Your task to perform on an android device: install app "DuckDuckGo Privacy Browser" Image 0: 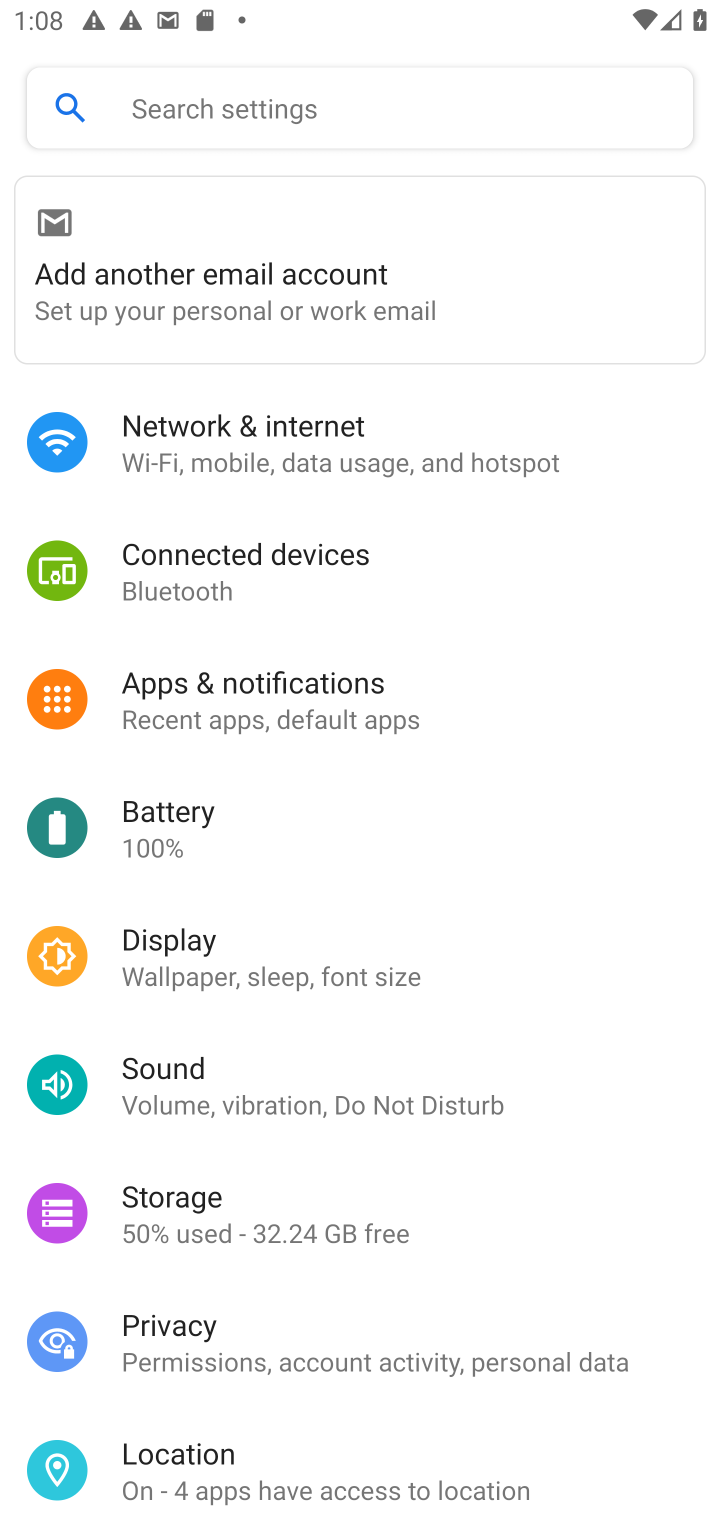
Step 0: press home button
Your task to perform on an android device: install app "DuckDuckGo Privacy Browser" Image 1: 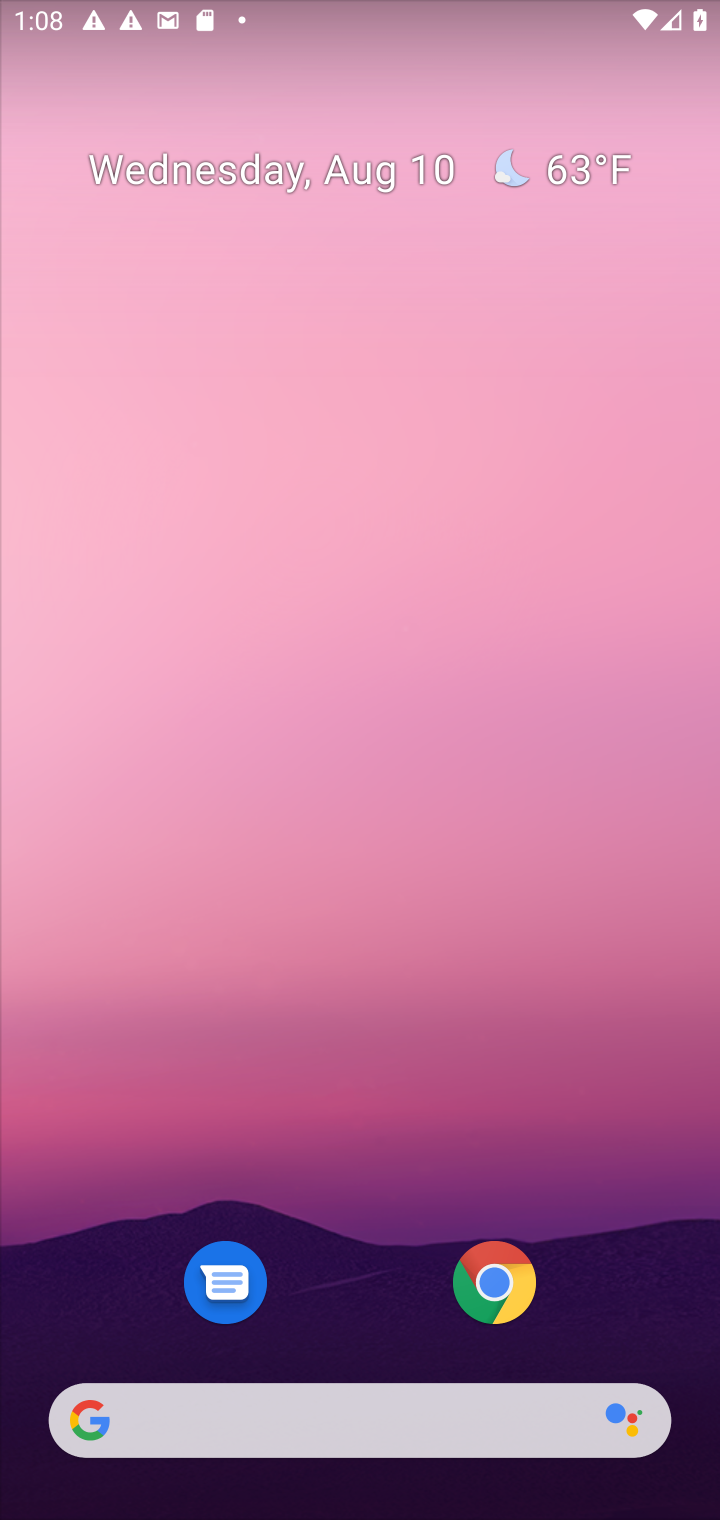
Step 1: drag from (305, 1285) to (503, 44)
Your task to perform on an android device: install app "DuckDuckGo Privacy Browser" Image 2: 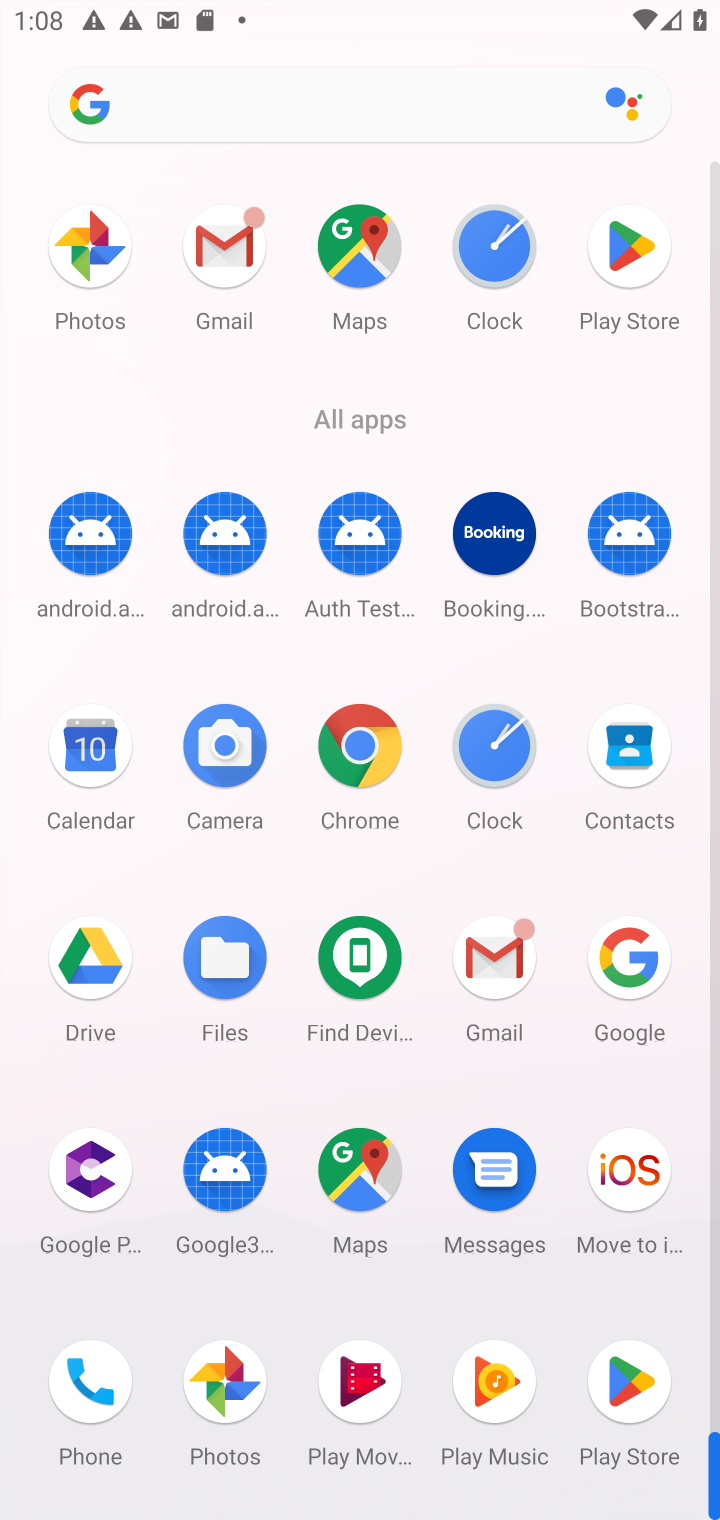
Step 2: click (376, 743)
Your task to perform on an android device: install app "DuckDuckGo Privacy Browser" Image 3: 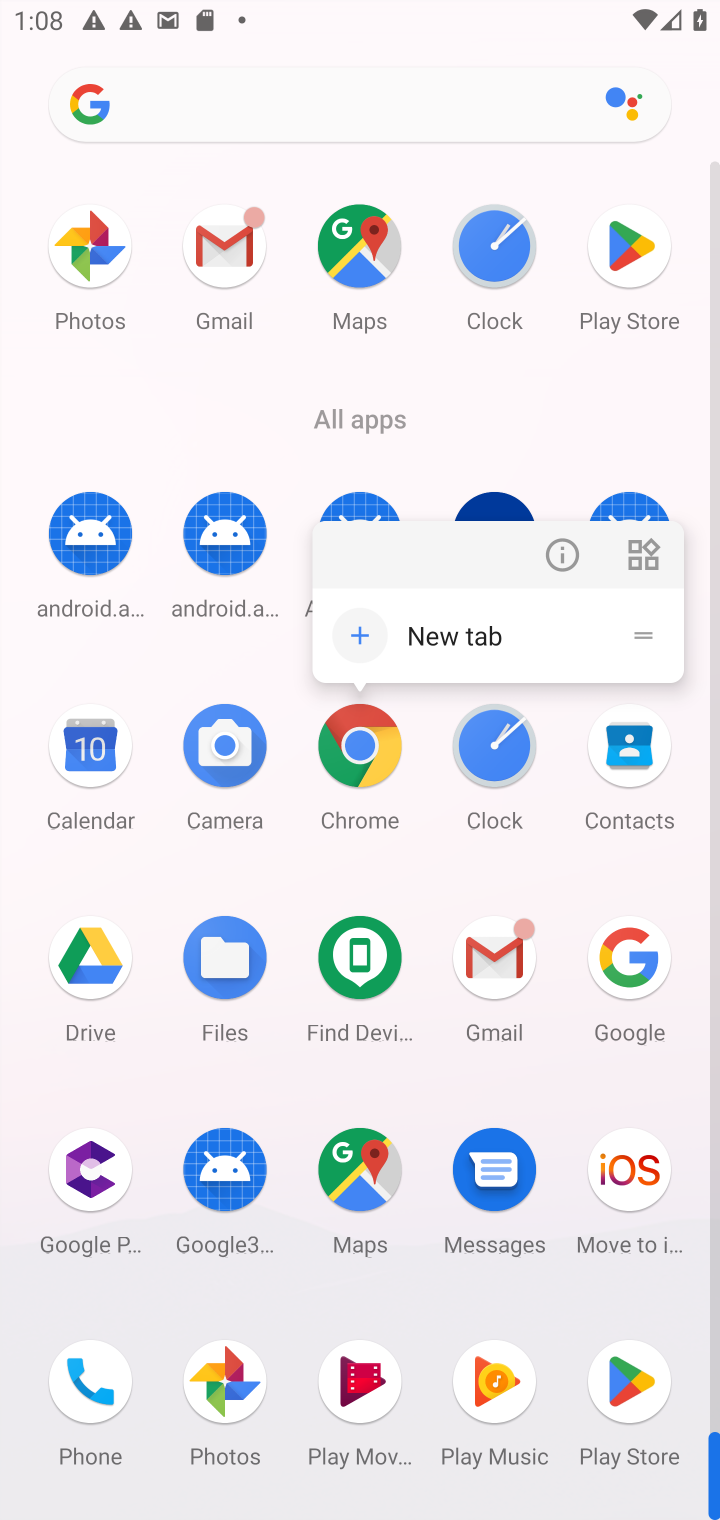
Step 3: click (376, 743)
Your task to perform on an android device: install app "DuckDuckGo Privacy Browser" Image 4: 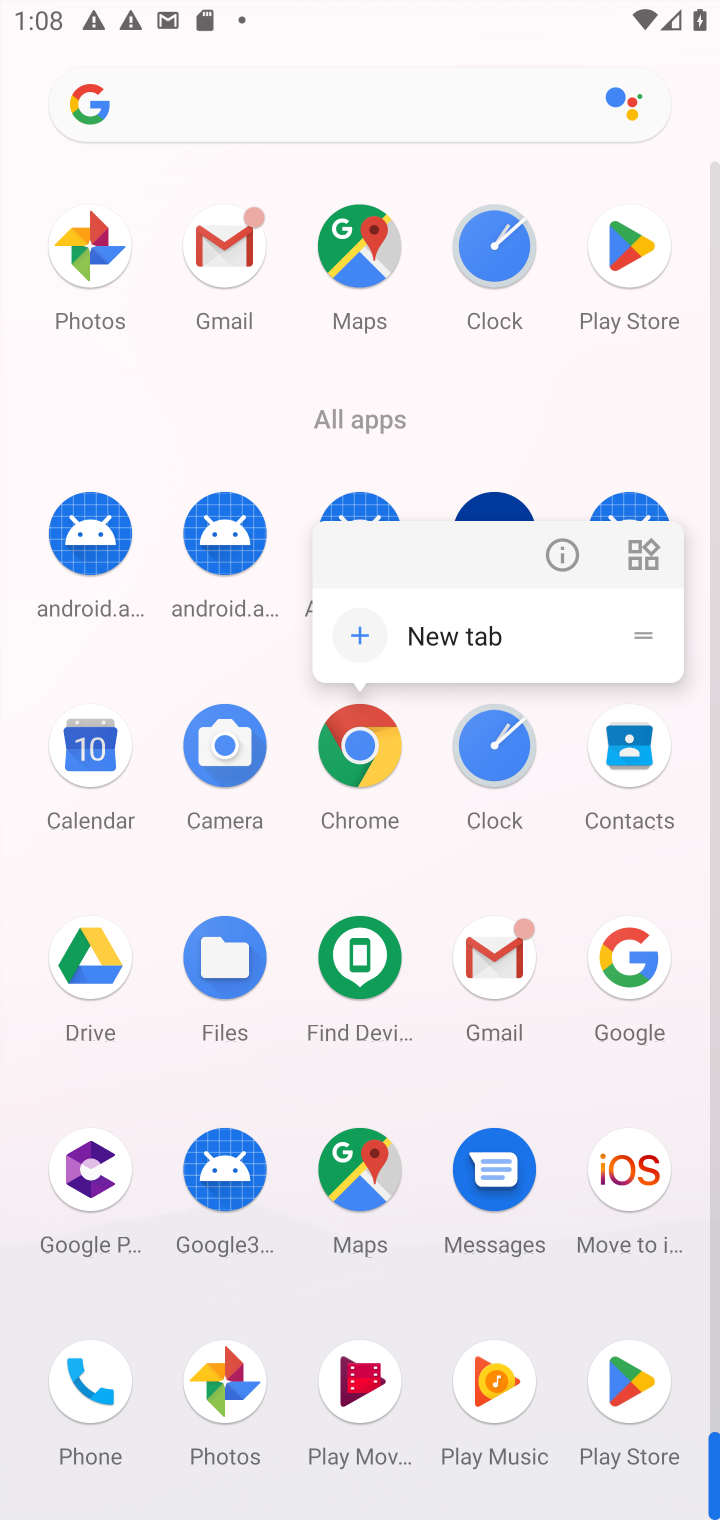
Step 4: click (376, 743)
Your task to perform on an android device: install app "DuckDuckGo Privacy Browser" Image 5: 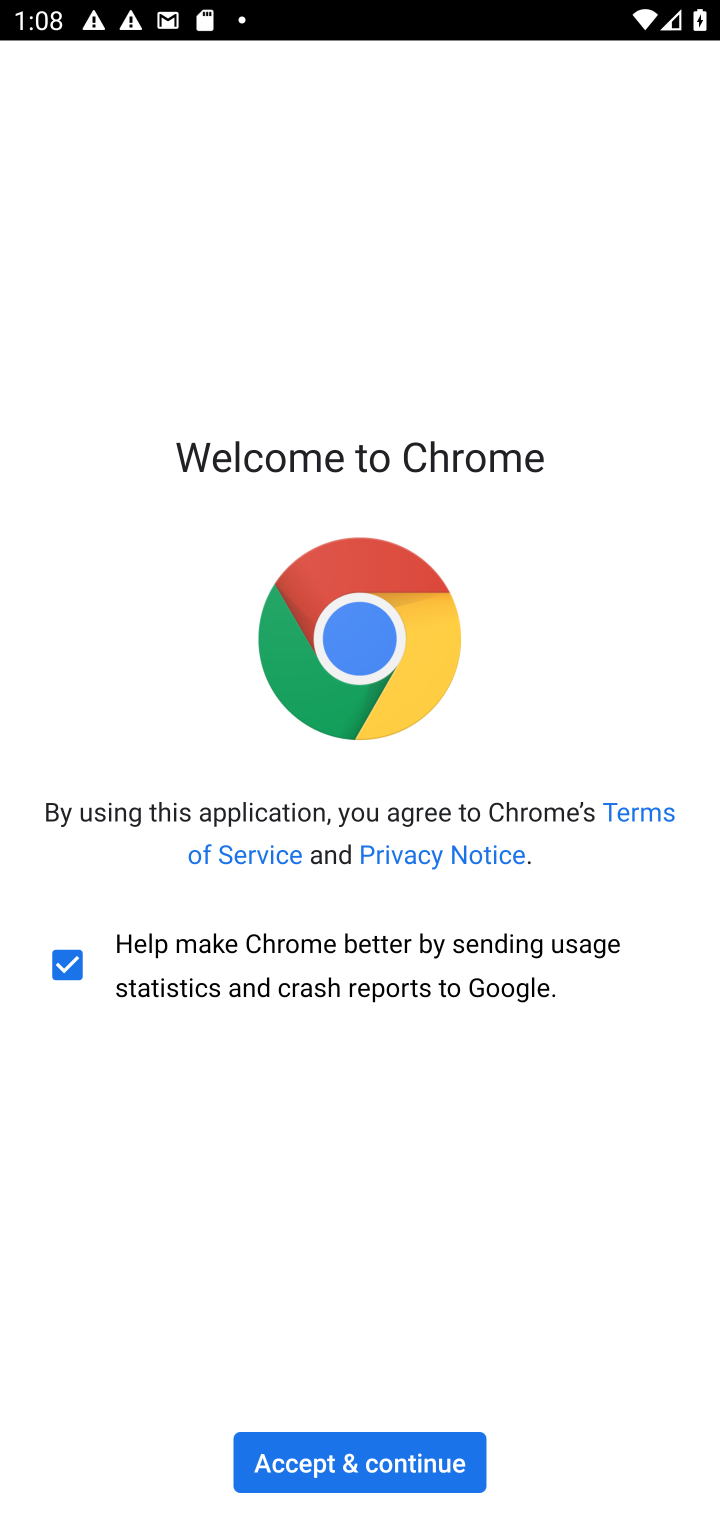
Step 5: press home button
Your task to perform on an android device: install app "DuckDuckGo Privacy Browser" Image 6: 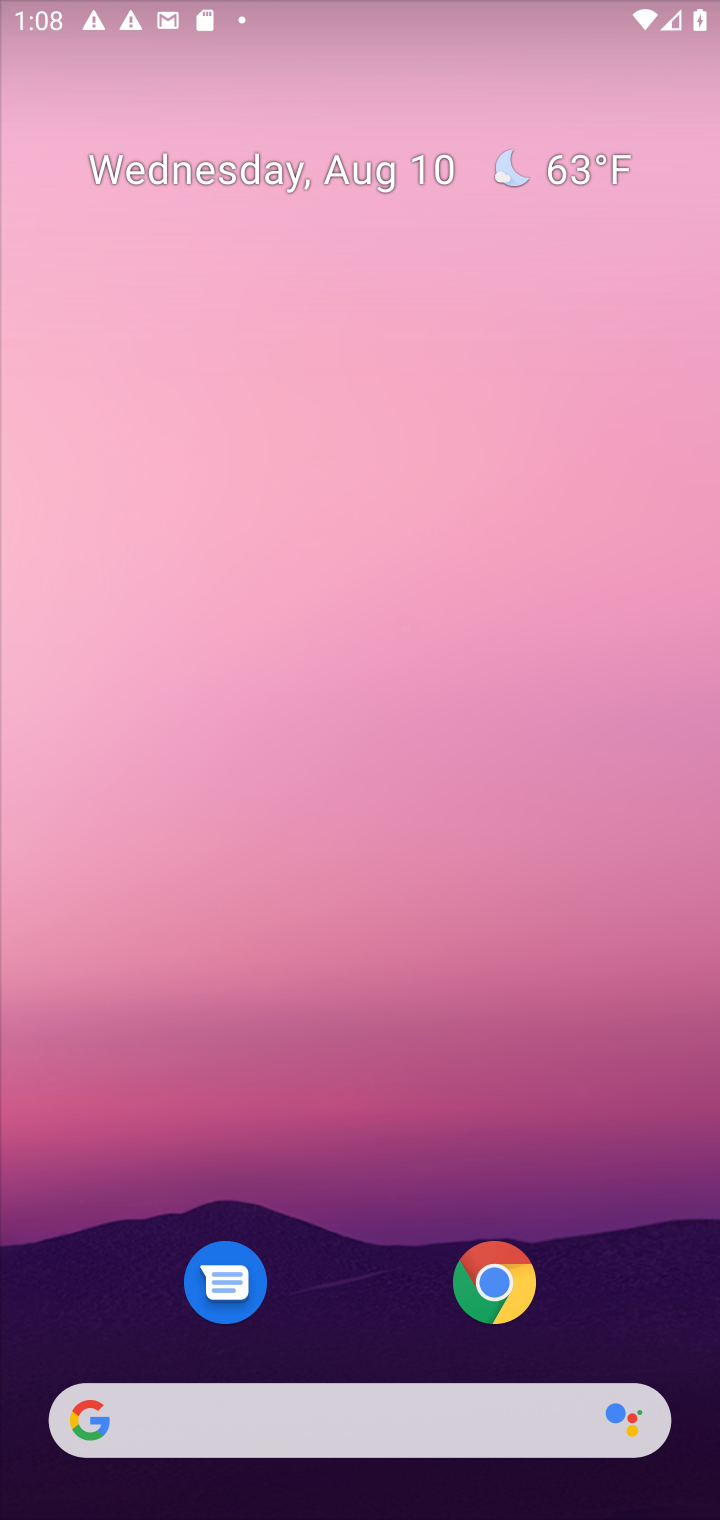
Step 6: drag from (366, 1285) to (492, 144)
Your task to perform on an android device: install app "DuckDuckGo Privacy Browser" Image 7: 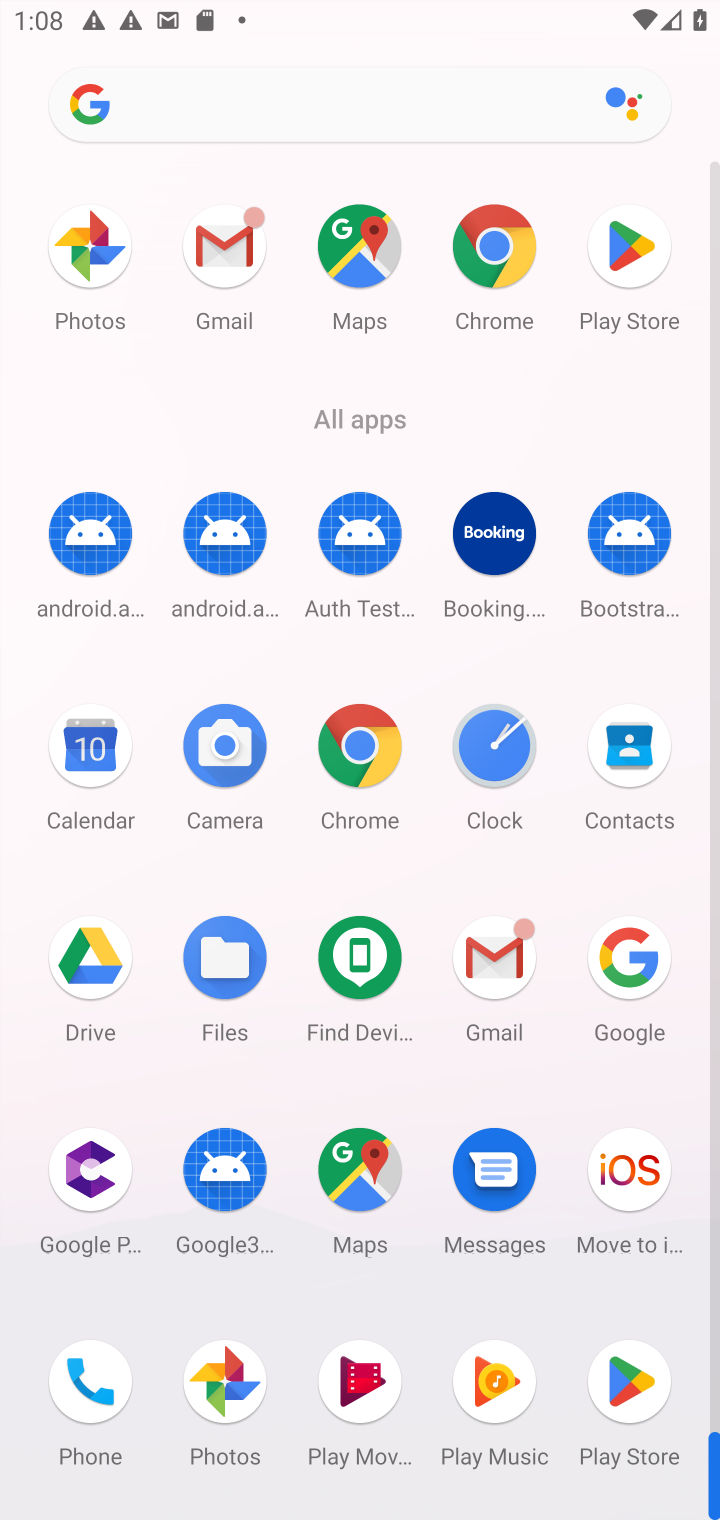
Step 7: click (625, 1361)
Your task to perform on an android device: install app "DuckDuckGo Privacy Browser" Image 8: 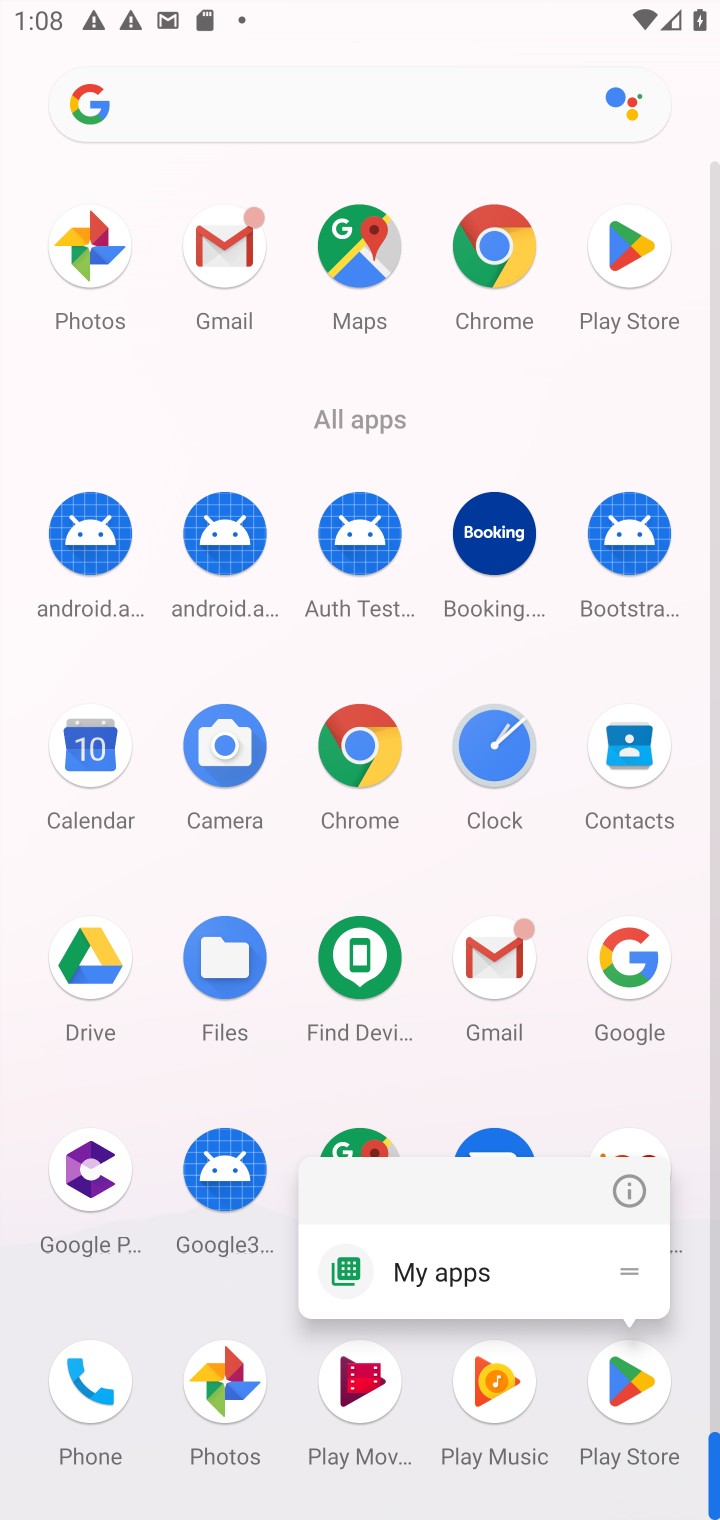
Step 8: click (625, 1354)
Your task to perform on an android device: install app "DuckDuckGo Privacy Browser" Image 9: 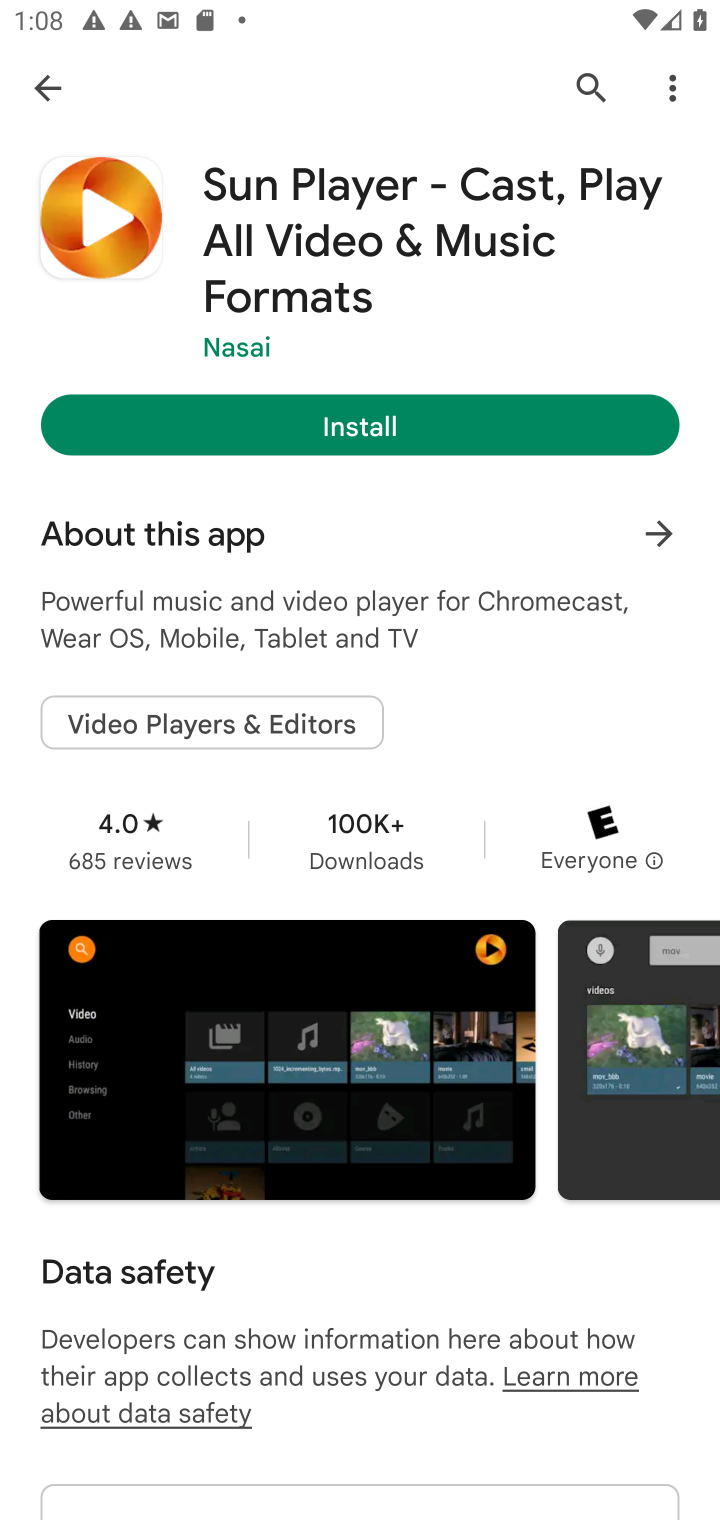
Step 9: click (46, 96)
Your task to perform on an android device: install app "DuckDuckGo Privacy Browser" Image 10: 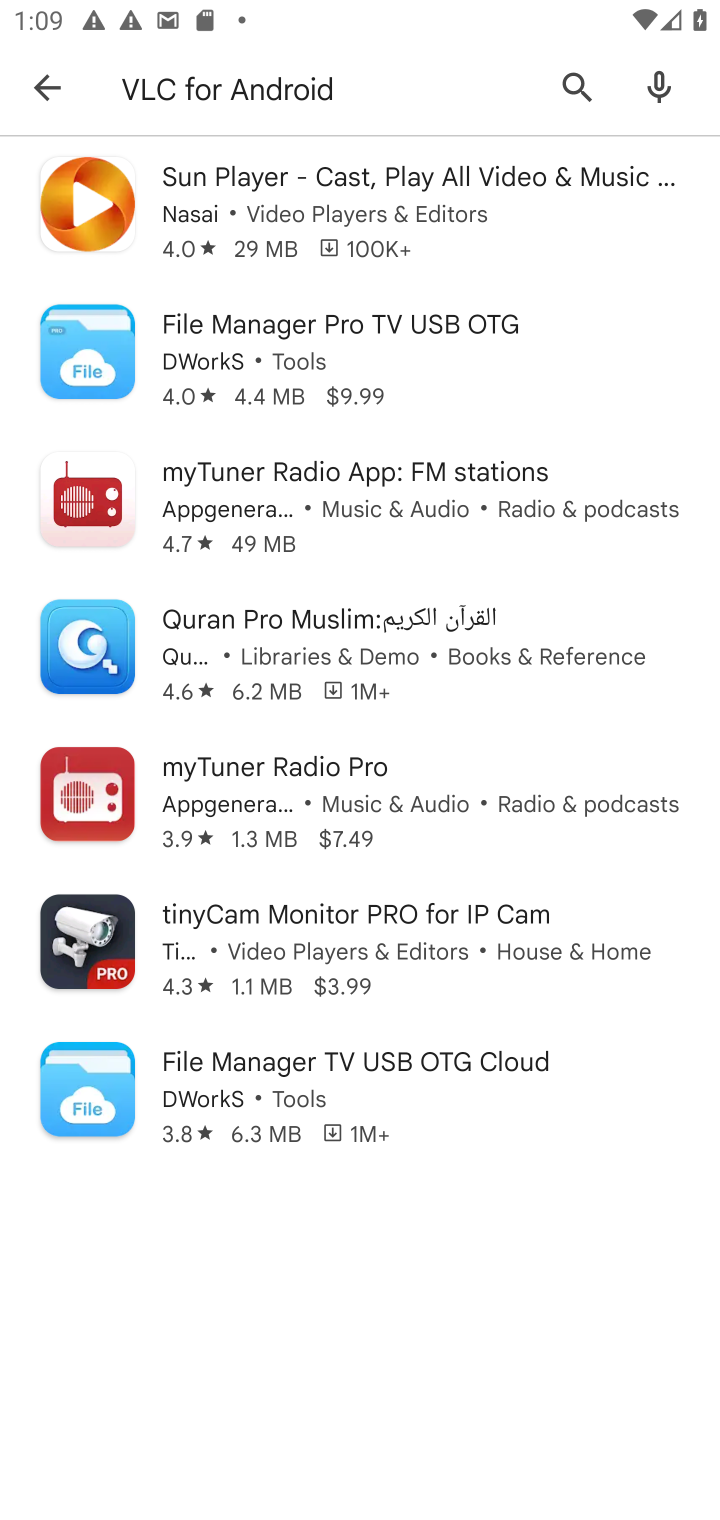
Step 10: click (46, 89)
Your task to perform on an android device: install app "DuckDuckGo Privacy Browser" Image 11: 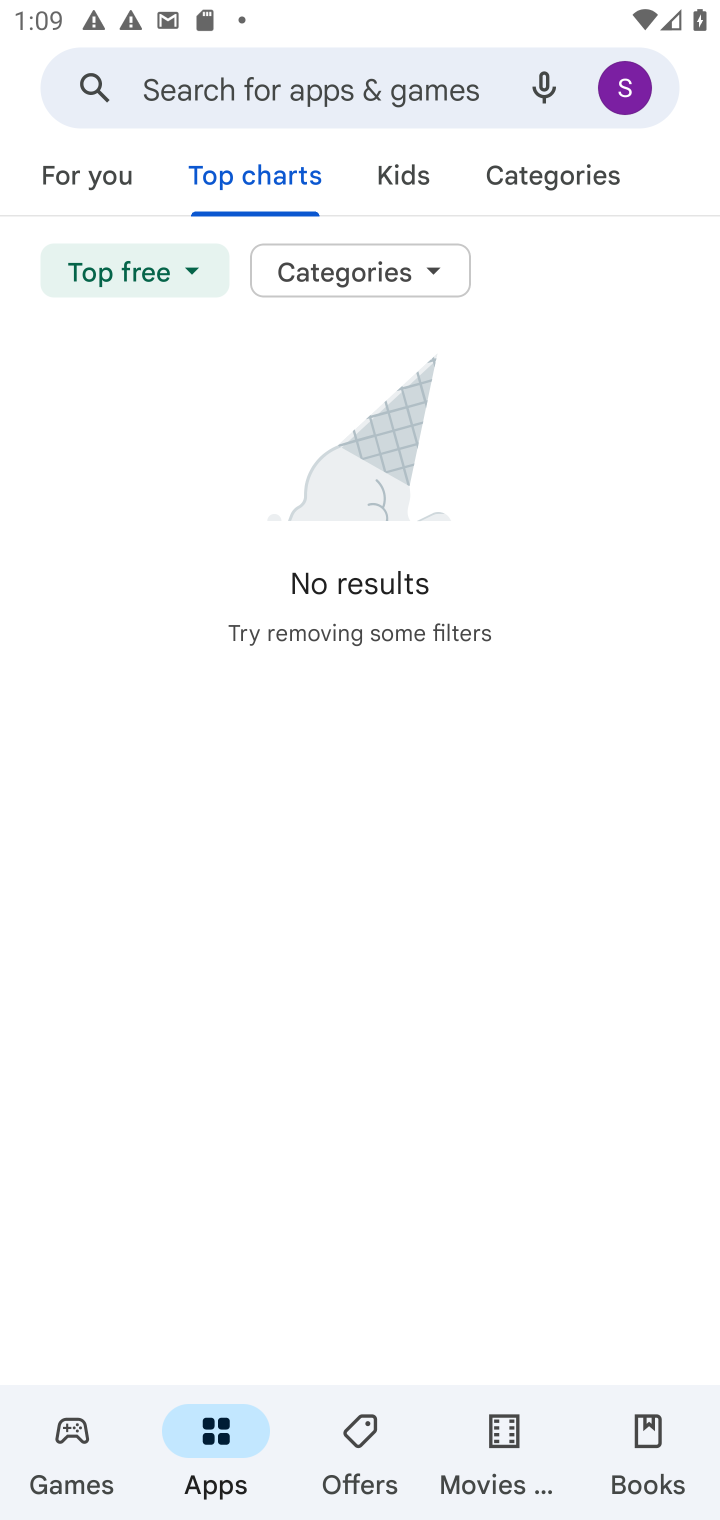
Step 11: click (110, 179)
Your task to perform on an android device: install app "DuckDuckGo Privacy Browser" Image 12: 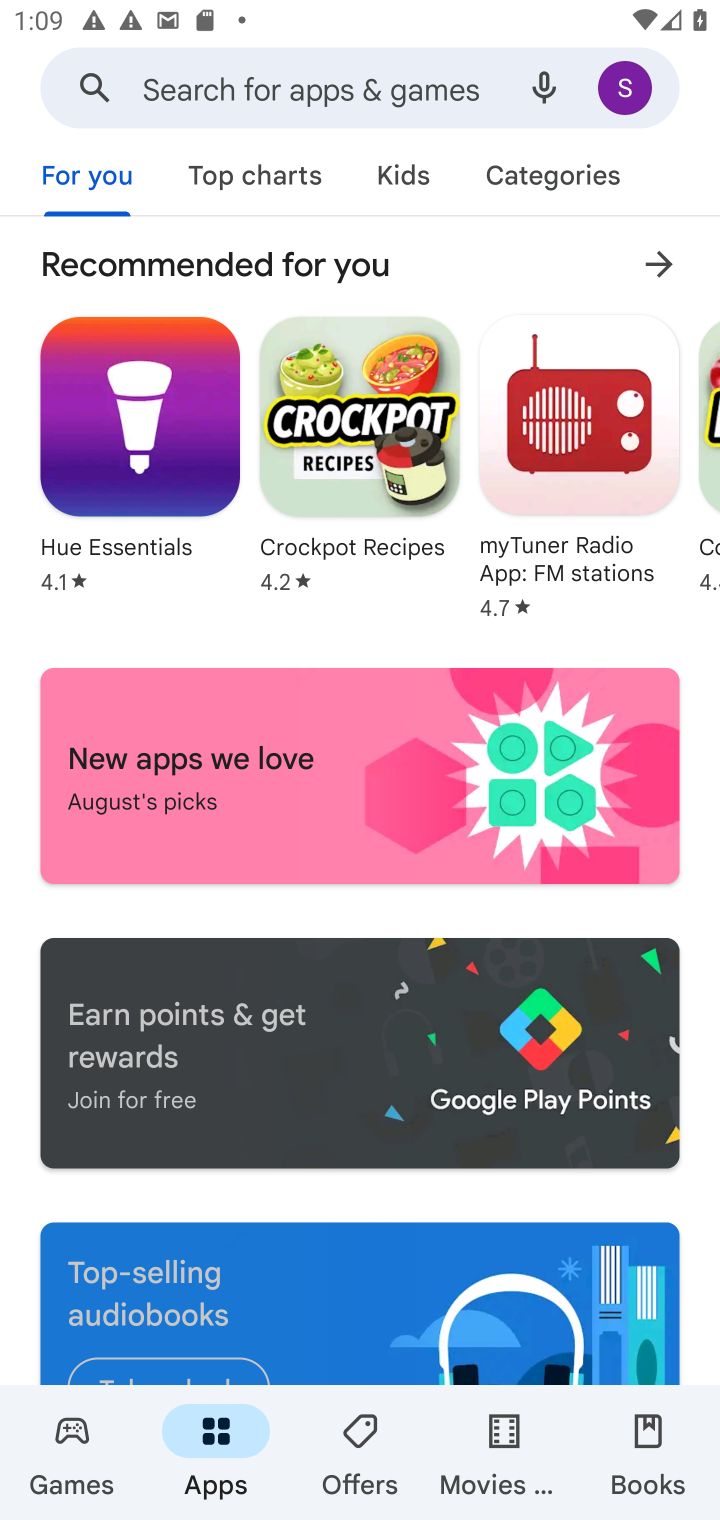
Step 12: click (325, 86)
Your task to perform on an android device: install app "DuckDuckGo Privacy Browser" Image 13: 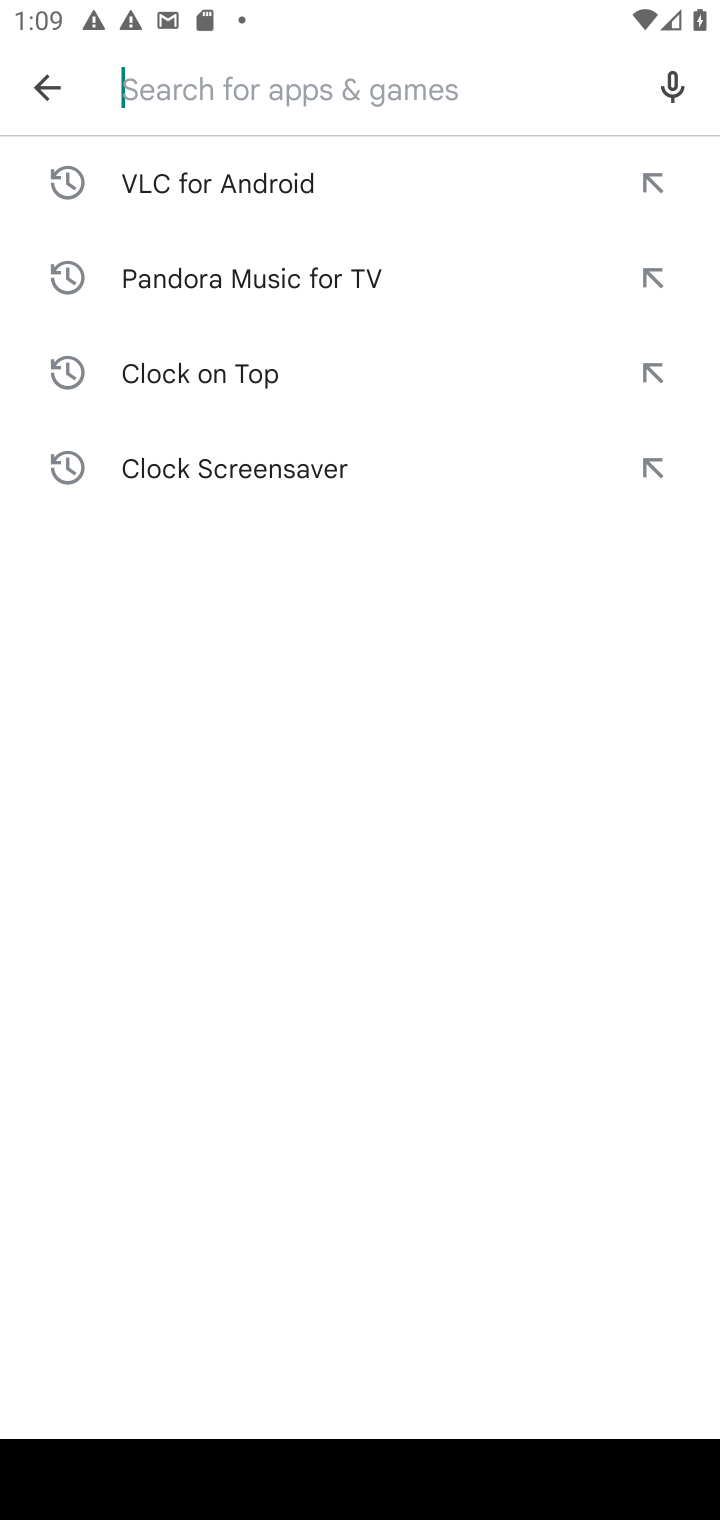
Step 13: type "DuckDuckGo Privacy Browser" "
Your task to perform on an android device: install app "DuckDuckGo Privacy Browser" Image 14: 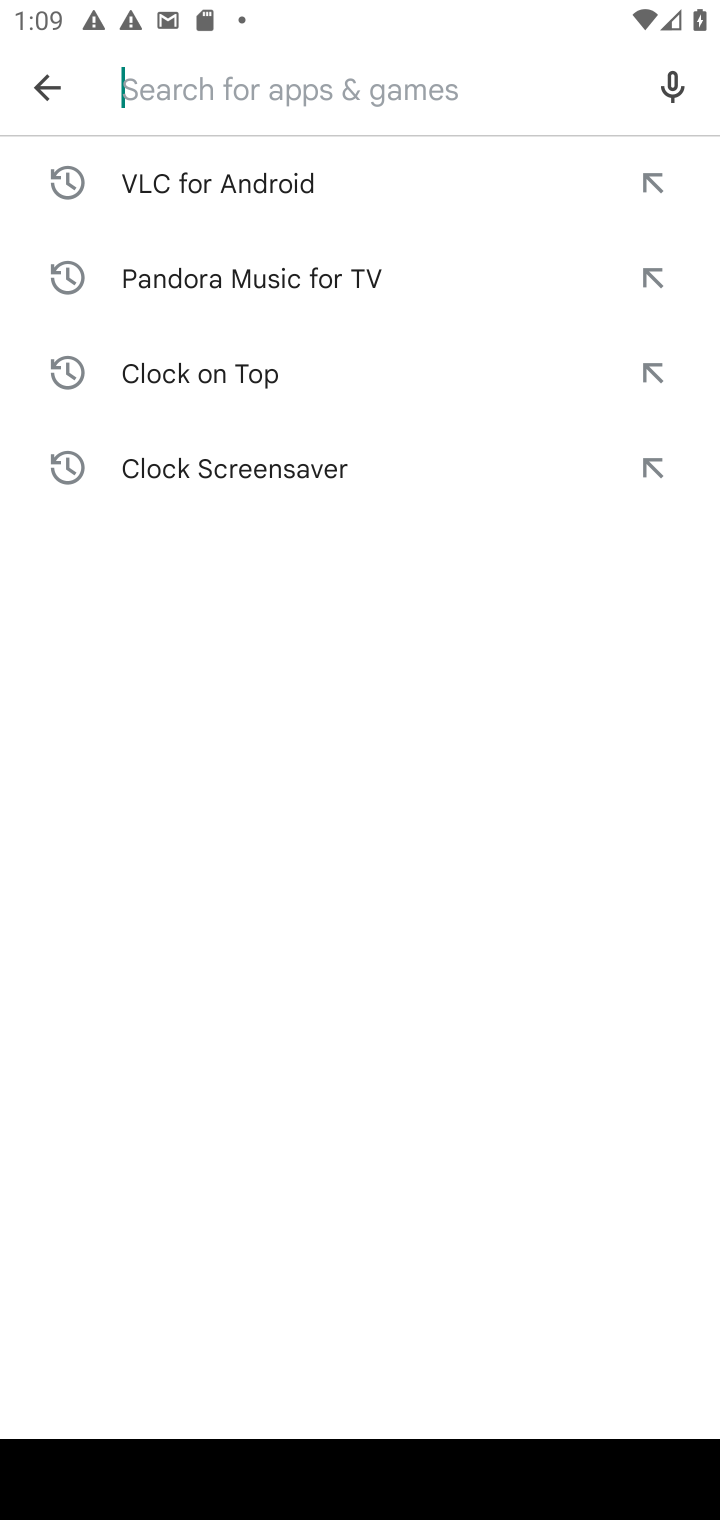
Step 14: click (390, 59)
Your task to perform on an android device: install app "DuckDuckGo Privacy Browser" Image 15: 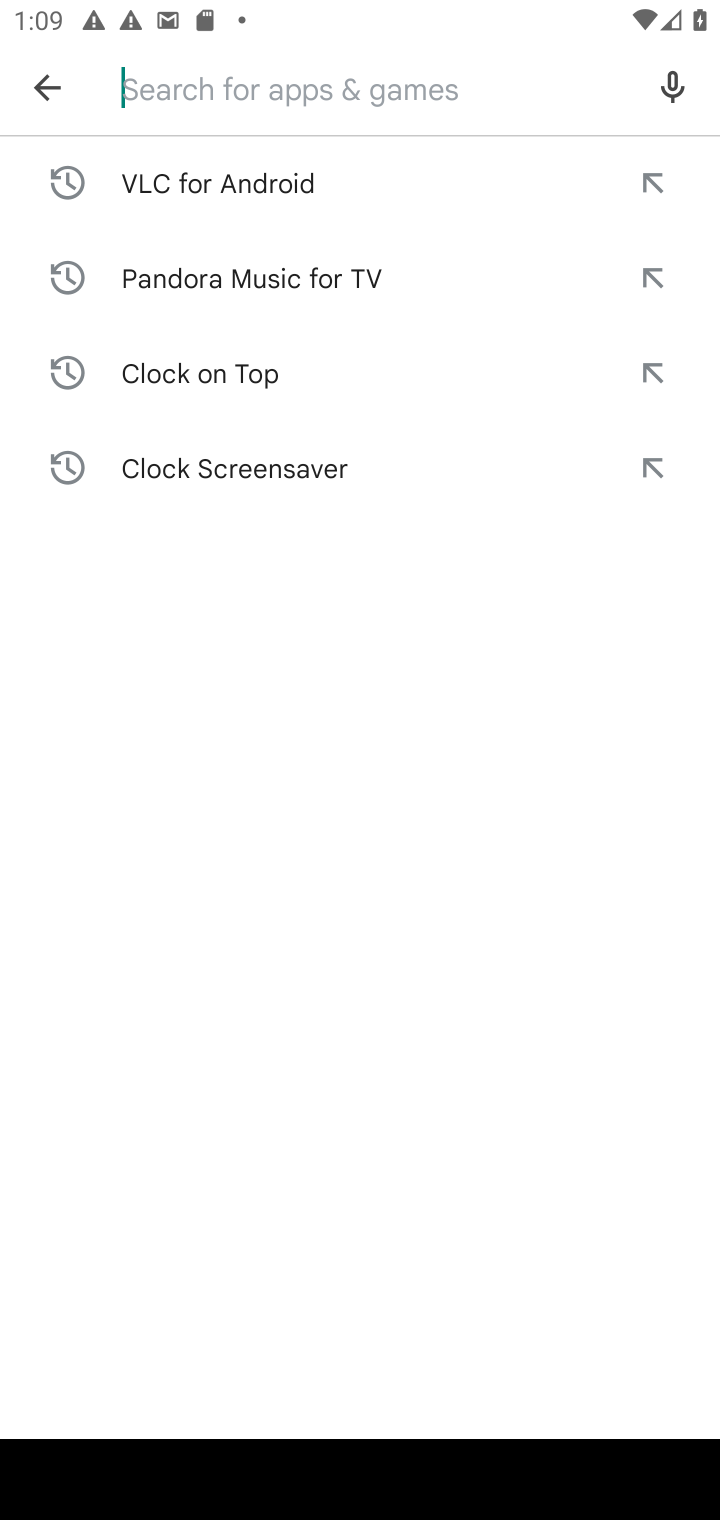
Step 15: type ""DuckDuckGo Privacy Browser "
Your task to perform on an android device: install app "DuckDuckGo Privacy Browser" Image 16: 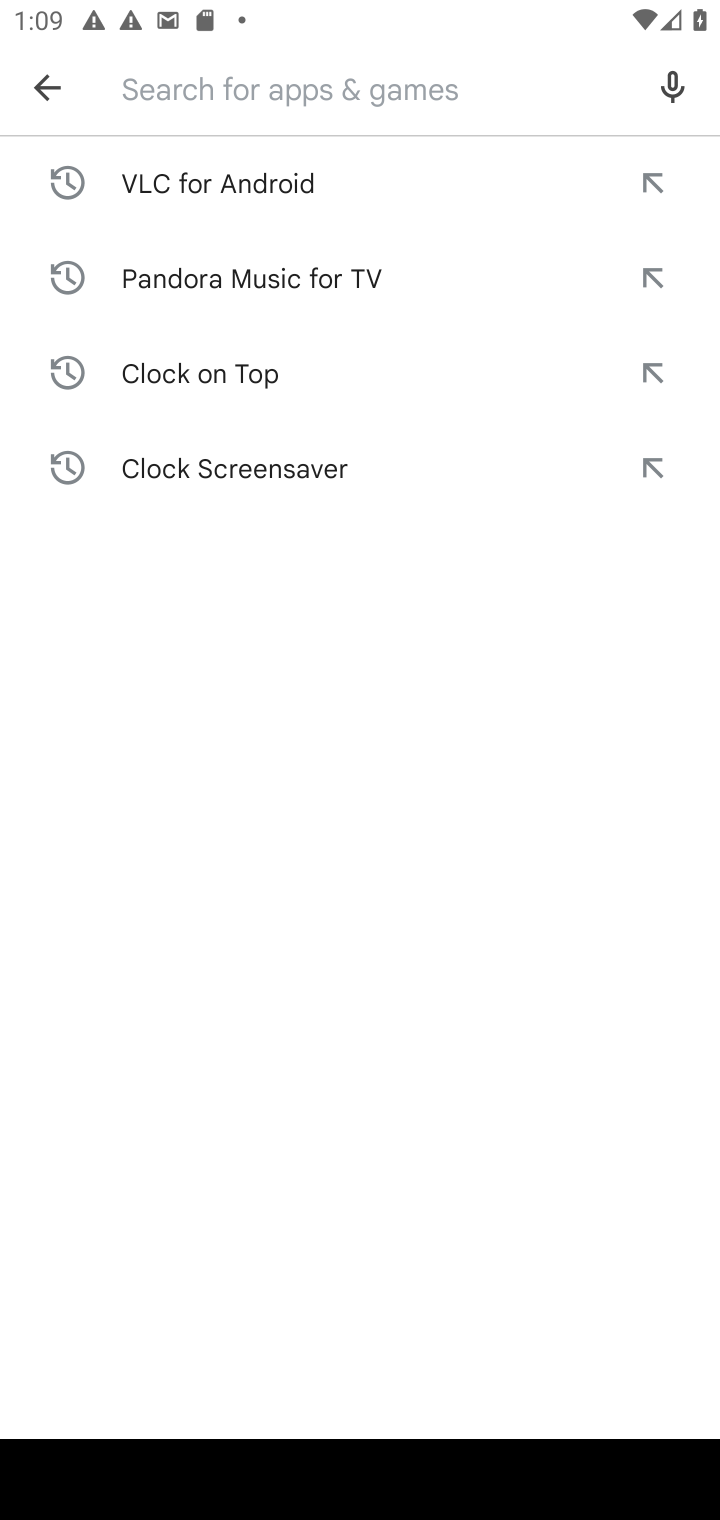
Step 16: click (301, 88)
Your task to perform on an android device: install app "DuckDuckGo Privacy Browser" Image 17: 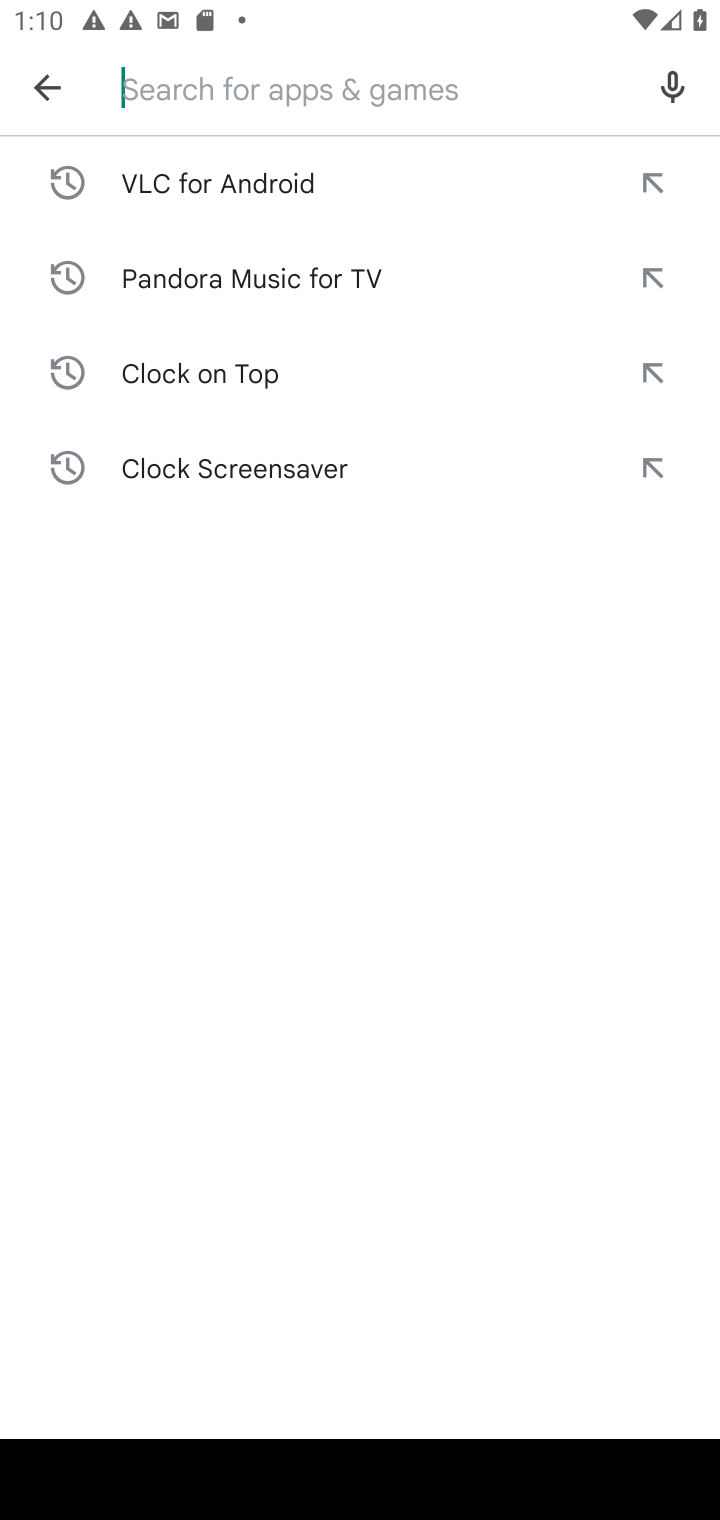
Step 17: type "duckduckgo "
Your task to perform on an android device: install app "DuckDuckGo Privacy Browser" Image 18: 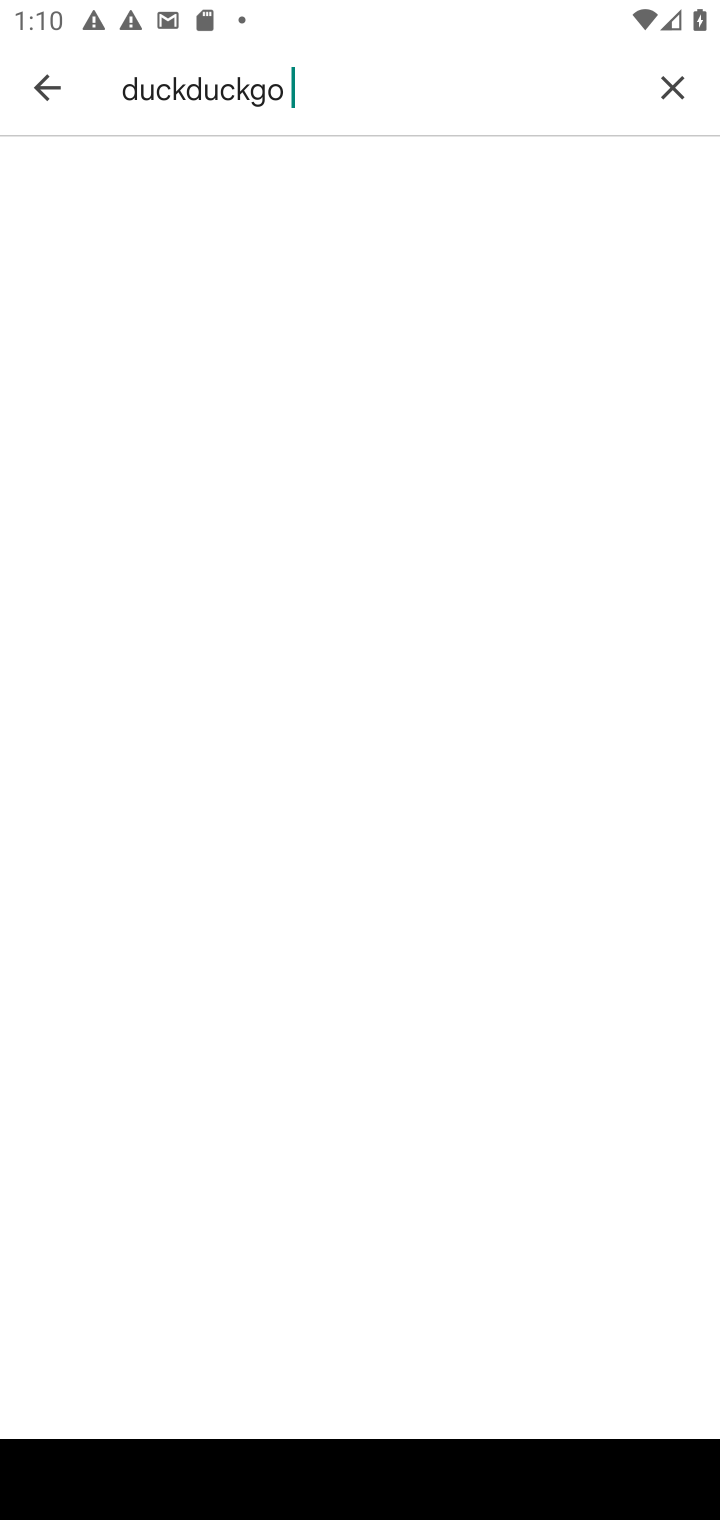
Step 18: click (322, 87)
Your task to perform on an android device: install app "DuckDuckGo Privacy Browser" Image 19: 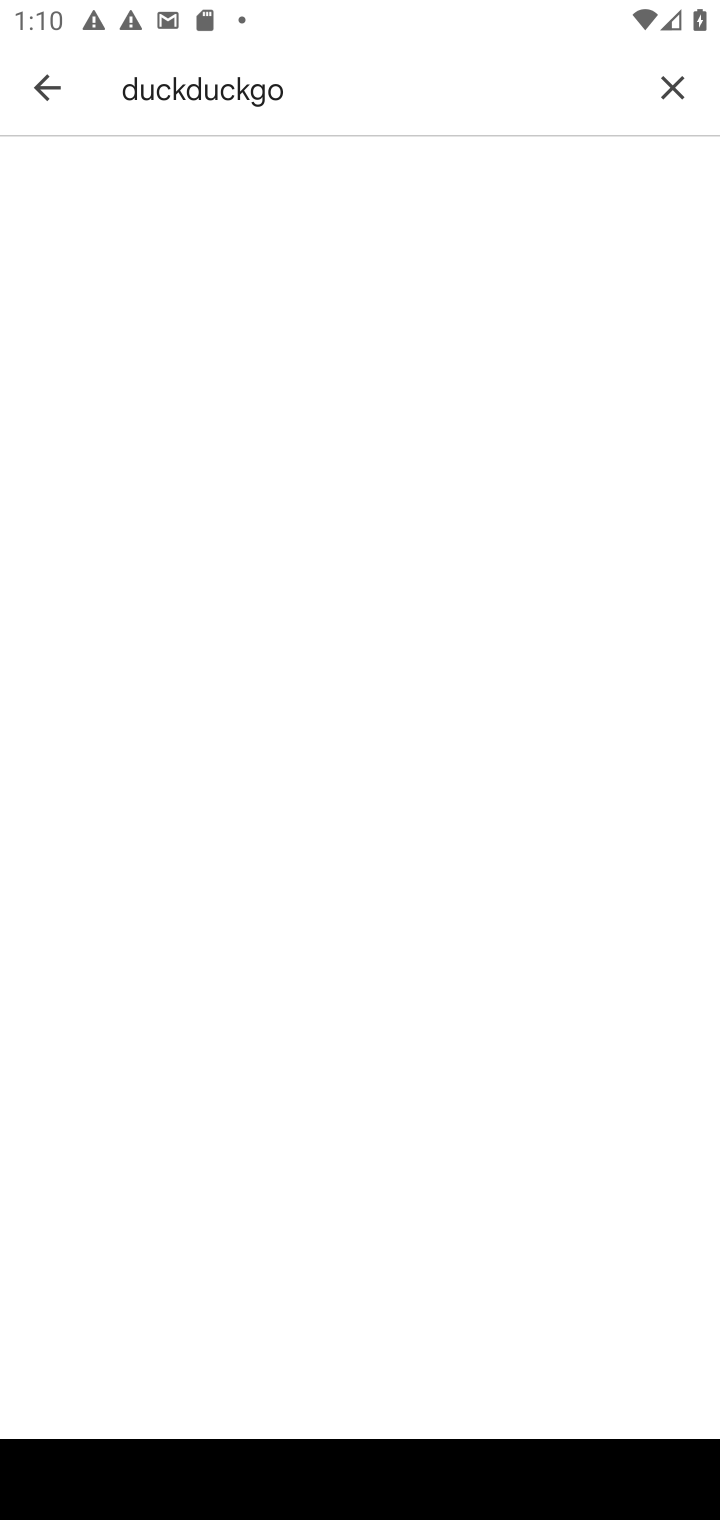
Step 19: click (281, 184)
Your task to perform on an android device: install app "DuckDuckGo Privacy Browser" Image 20: 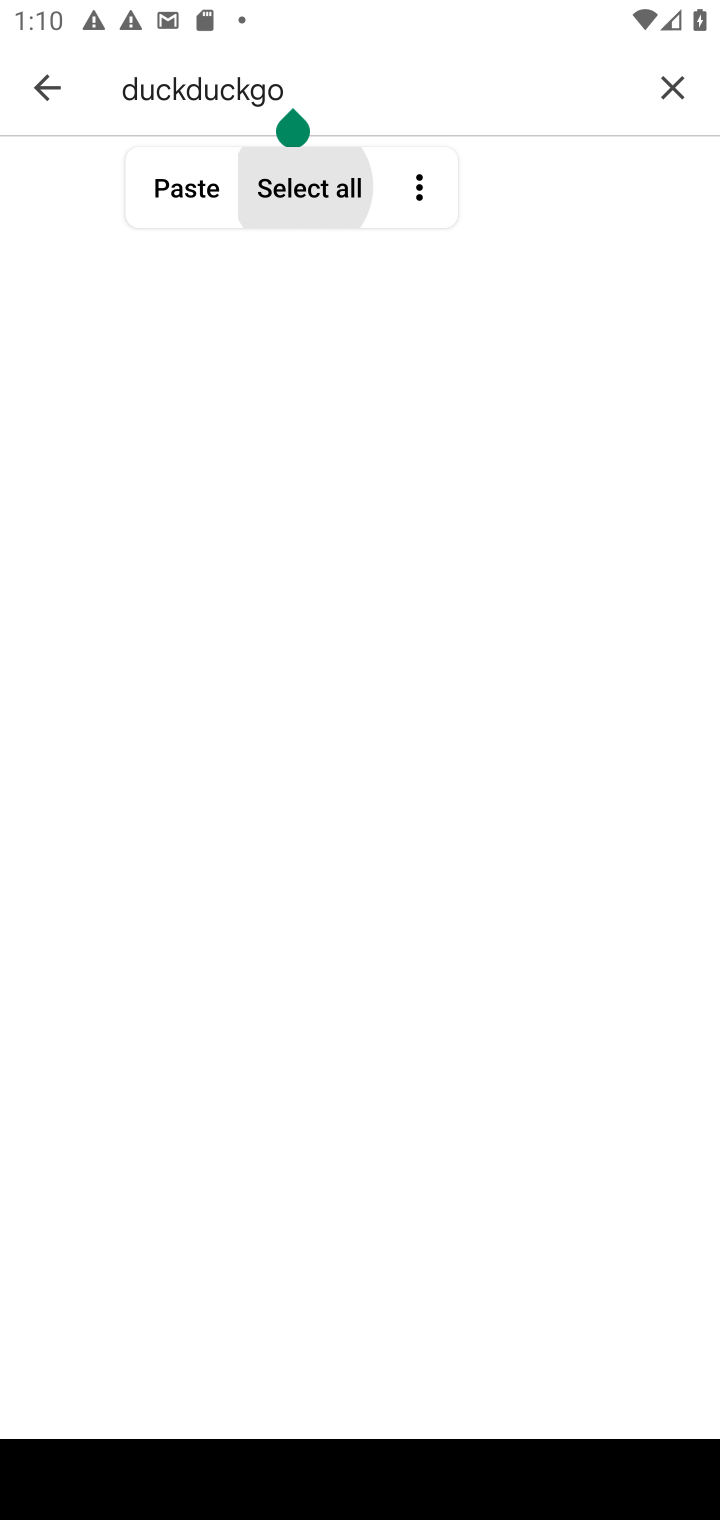
Step 20: click (281, 184)
Your task to perform on an android device: install app "DuckDuckGo Privacy Browser" Image 21: 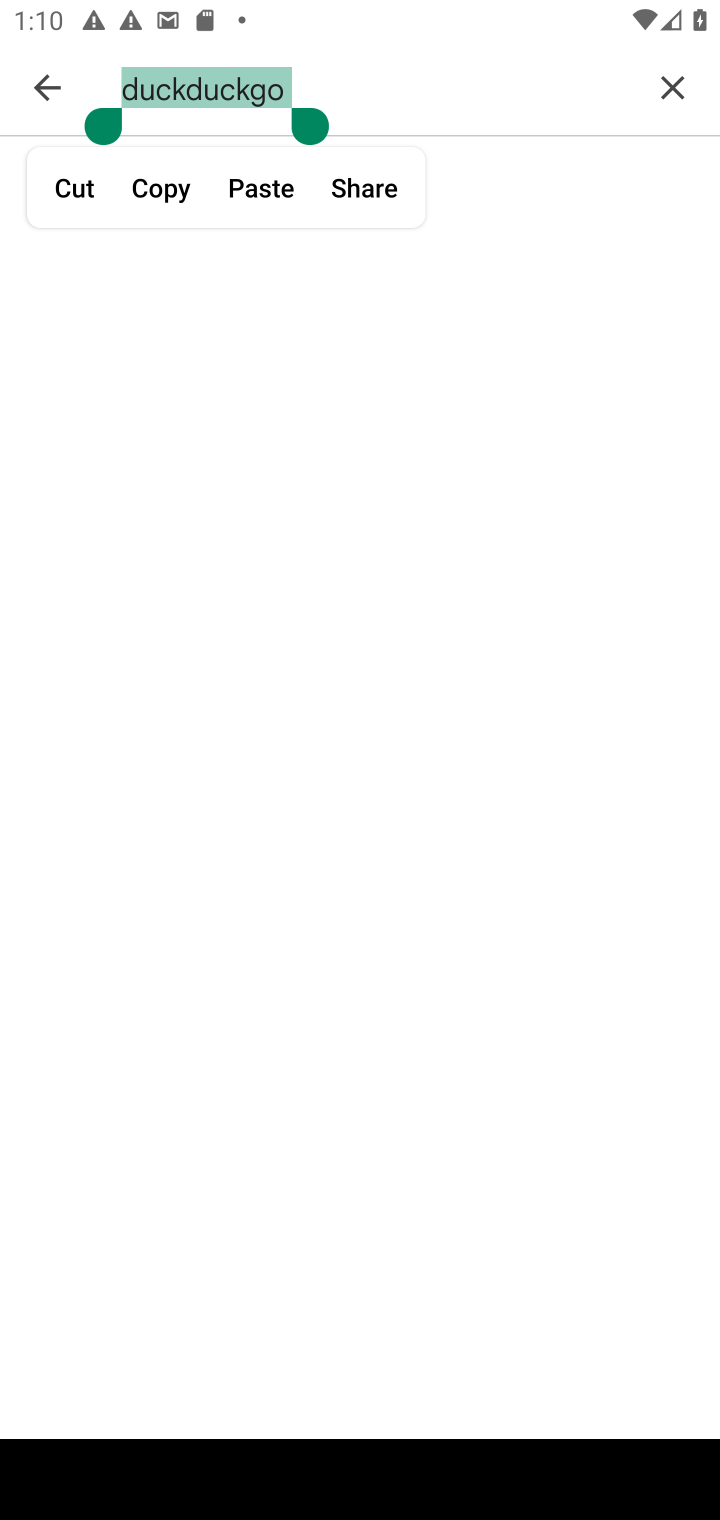
Step 21: task complete